Your task to perform on an android device: open a bookmark in the chrome app Image 0: 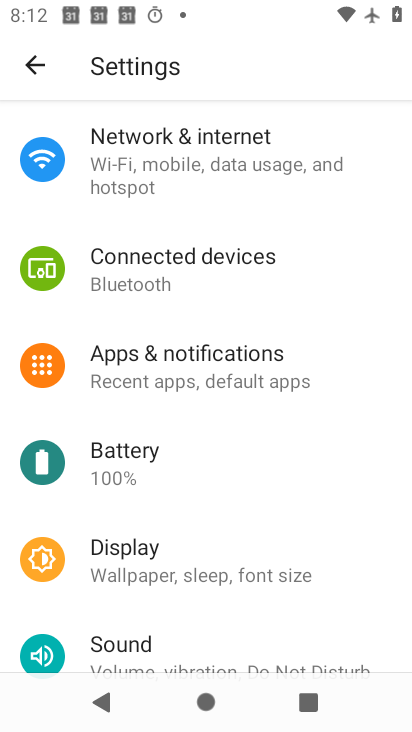
Step 0: press home button
Your task to perform on an android device: open a bookmark in the chrome app Image 1: 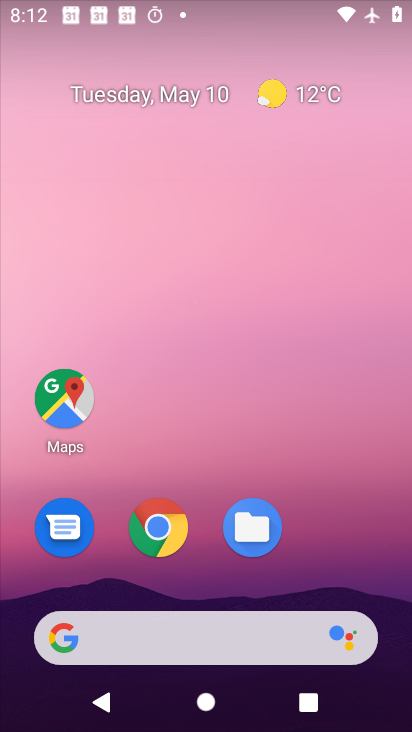
Step 1: click (150, 535)
Your task to perform on an android device: open a bookmark in the chrome app Image 2: 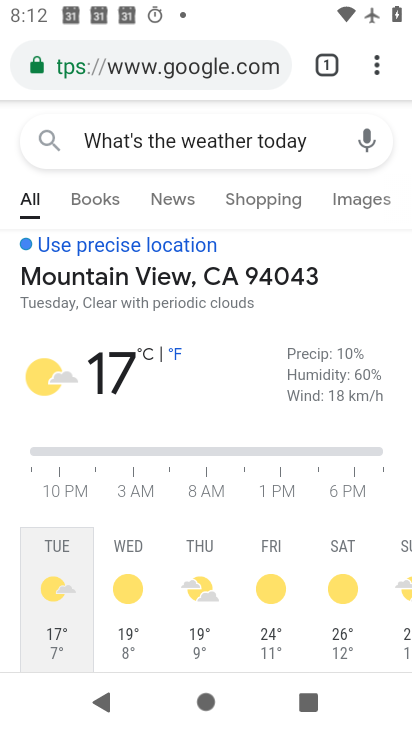
Step 2: drag from (377, 69) to (164, 252)
Your task to perform on an android device: open a bookmark in the chrome app Image 3: 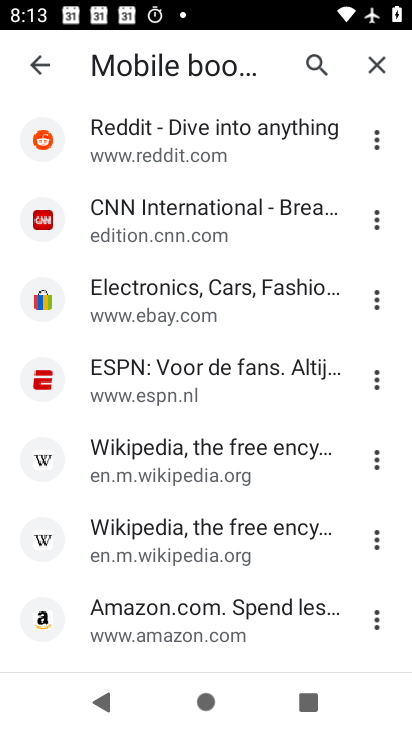
Step 3: click (172, 214)
Your task to perform on an android device: open a bookmark in the chrome app Image 4: 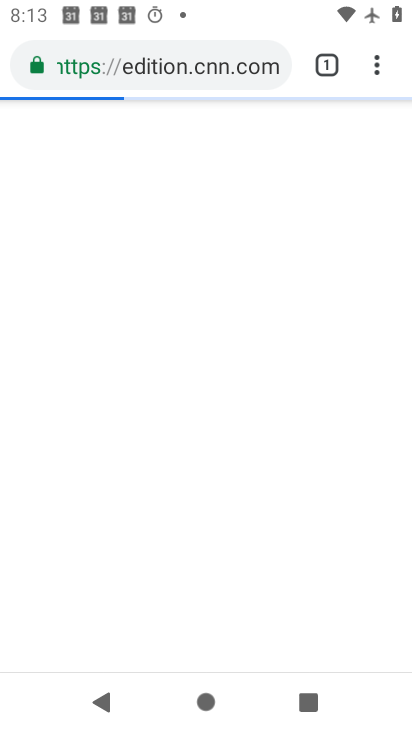
Step 4: task complete